Your task to perform on an android device: turn off javascript in the chrome app Image 0: 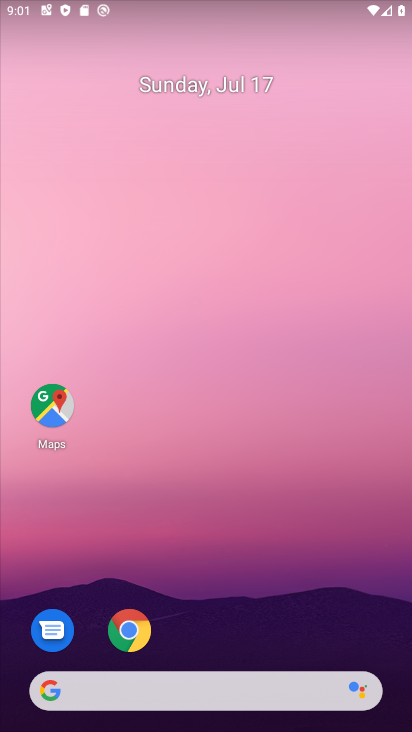
Step 0: click (191, 0)
Your task to perform on an android device: turn off javascript in the chrome app Image 1: 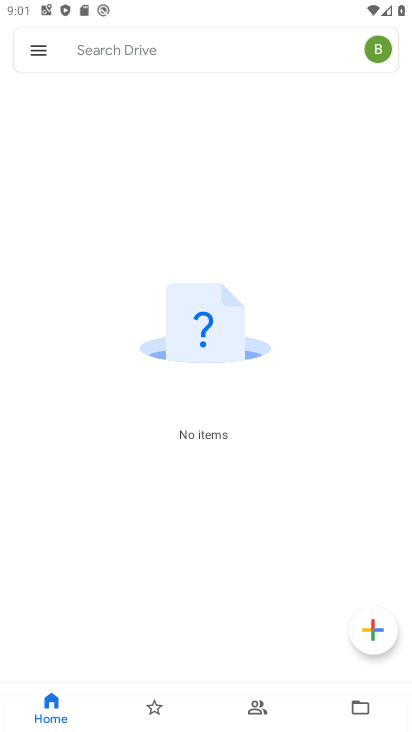
Step 1: press home button
Your task to perform on an android device: turn off javascript in the chrome app Image 2: 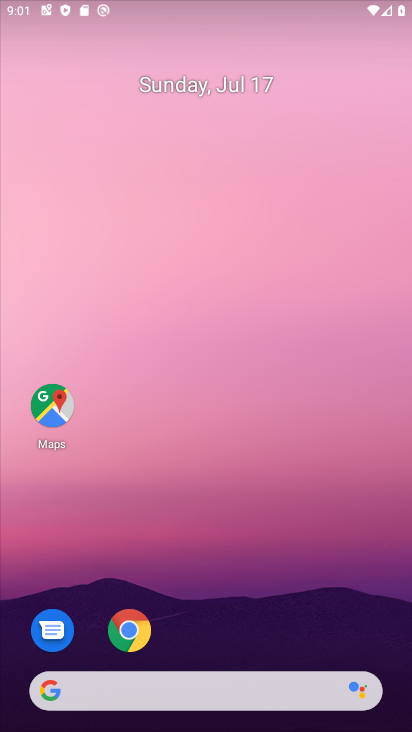
Step 2: drag from (257, 695) to (214, 110)
Your task to perform on an android device: turn off javascript in the chrome app Image 3: 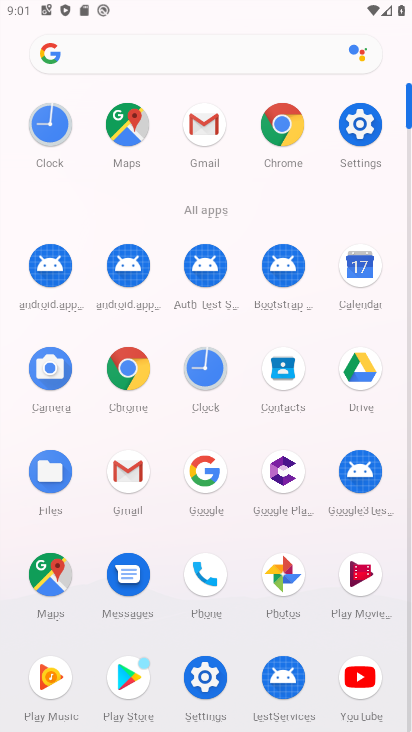
Step 3: click (128, 362)
Your task to perform on an android device: turn off javascript in the chrome app Image 4: 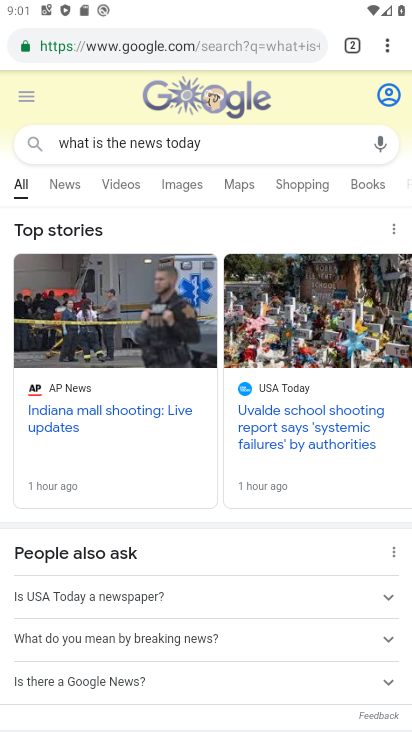
Step 4: drag from (387, 35) to (251, 496)
Your task to perform on an android device: turn off javascript in the chrome app Image 5: 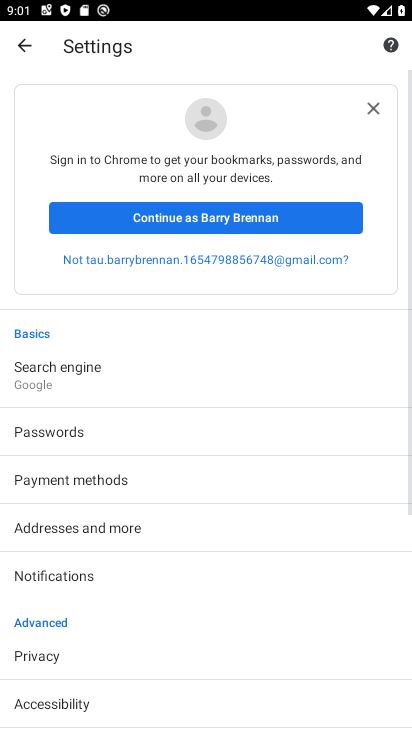
Step 5: drag from (114, 686) to (92, 253)
Your task to perform on an android device: turn off javascript in the chrome app Image 6: 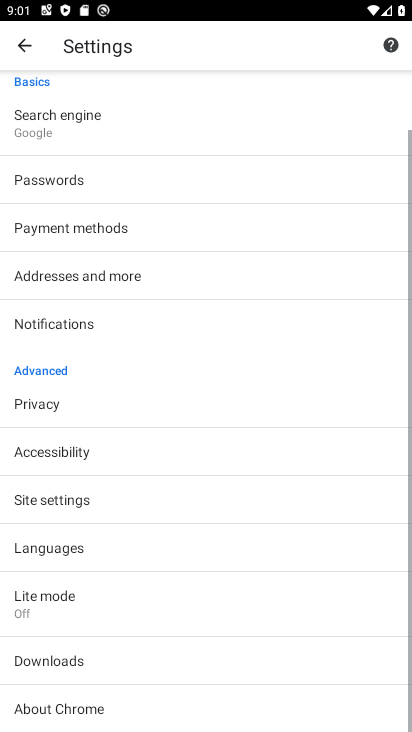
Step 6: click (74, 513)
Your task to perform on an android device: turn off javascript in the chrome app Image 7: 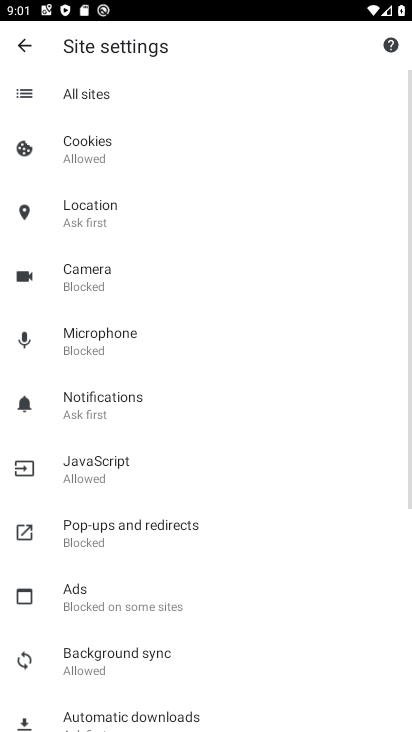
Step 7: click (97, 483)
Your task to perform on an android device: turn off javascript in the chrome app Image 8: 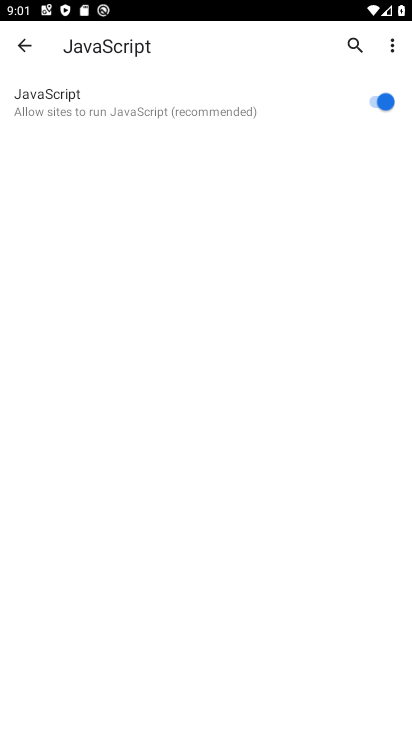
Step 8: click (378, 96)
Your task to perform on an android device: turn off javascript in the chrome app Image 9: 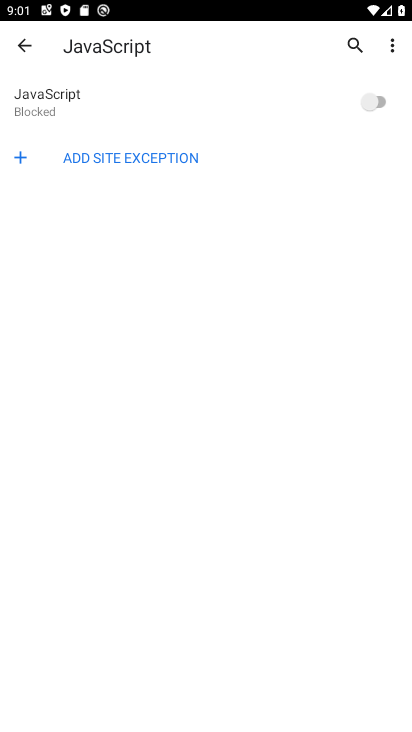
Step 9: task complete